Your task to perform on an android device: search for starred emails in the gmail app Image 0: 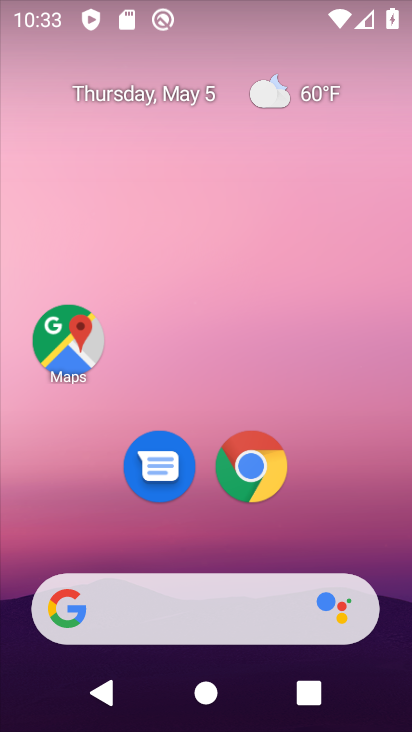
Step 0: drag from (238, 572) to (272, 179)
Your task to perform on an android device: search for starred emails in the gmail app Image 1: 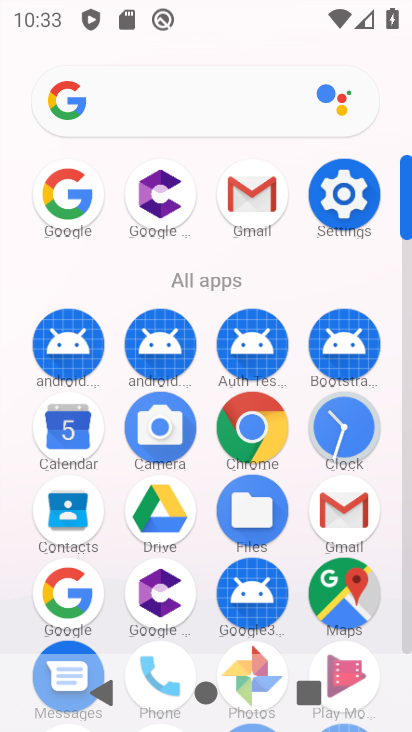
Step 1: click (252, 201)
Your task to perform on an android device: search for starred emails in the gmail app Image 2: 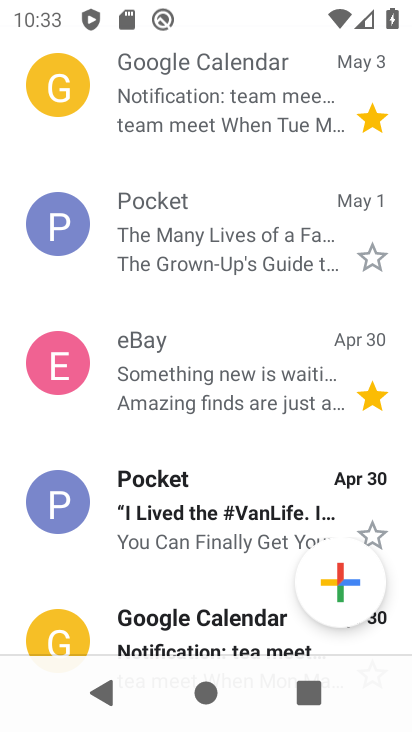
Step 2: drag from (193, 116) to (186, 557)
Your task to perform on an android device: search for starred emails in the gmail app Image 3: 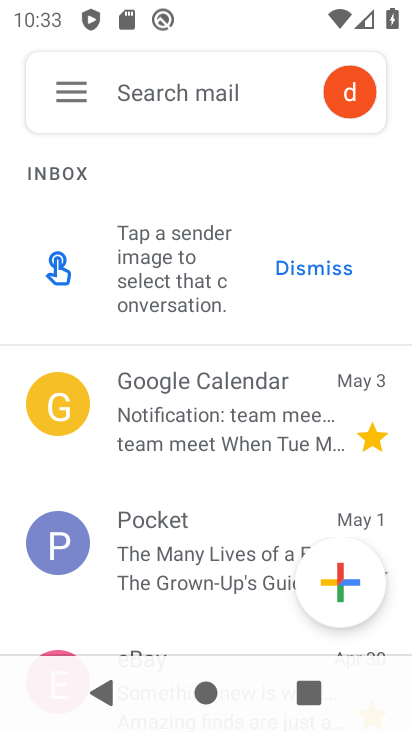
Step 3: click (67, 101)
Your task to perform on an android device: search for starred emails in the gmail app Image 4: 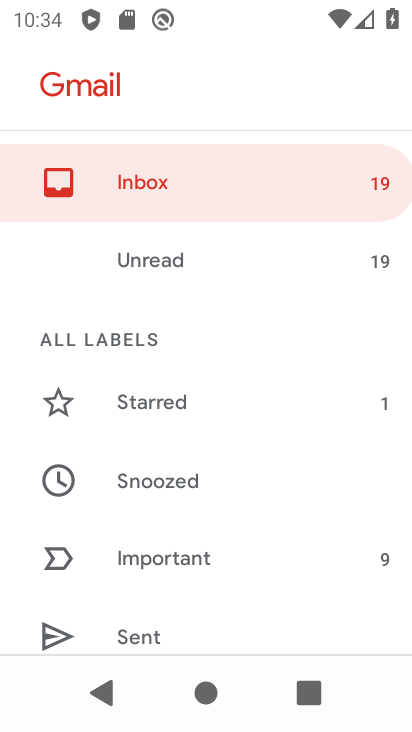
Step 4: drag from (150, 618) to (164, 376)
Your task to perform on an android device: search for starred emails in the gmail app Image 5: 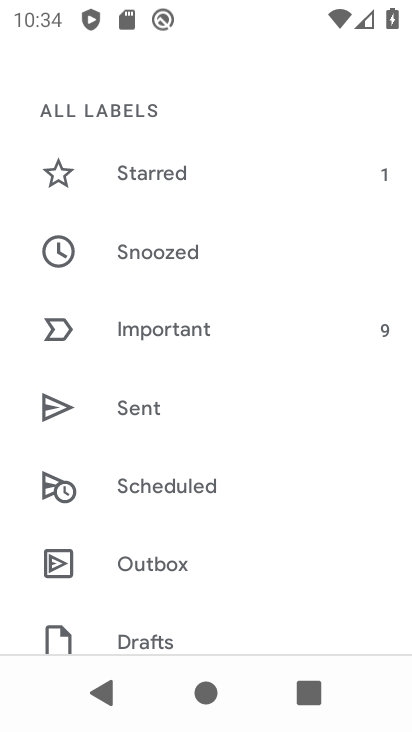
Step 5: click (153, 174)
Your task to perform on an android device: search for starred emails in the gmail app Image 6: 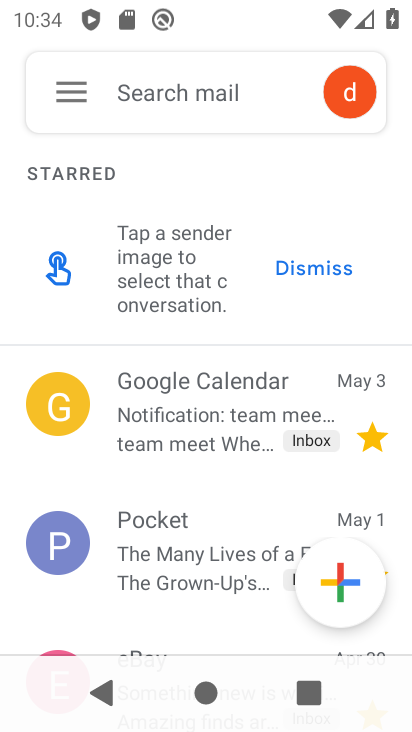
Step 6: task complete